Your task to perform on an android device: turn off translation in the chrome app Image 0: 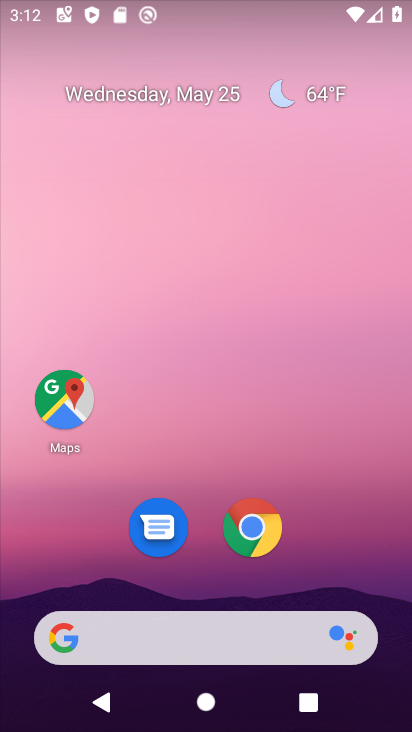
Step 0: click (259, 523)
Your task to perform on an android device: turn off translation in the chrome app Image 1: 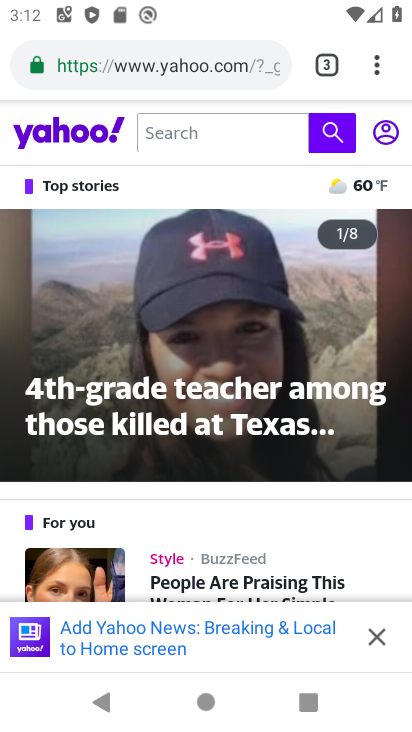
Step 1: drag from (374, 51) to (168, 569)
Your task to perform on an android device: turn off translation in the chrome app Image 2: 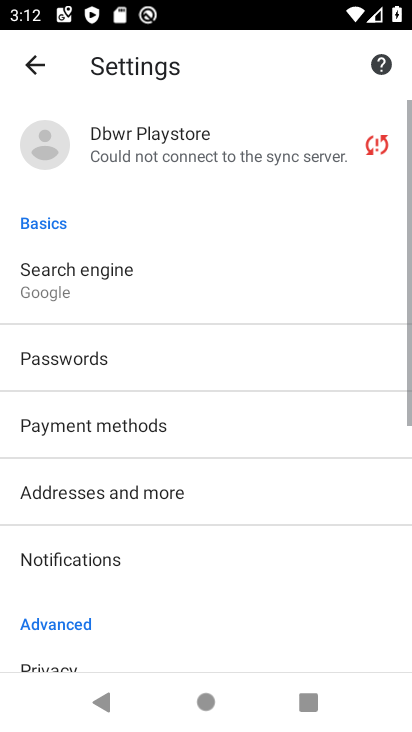
Step 2: drag from (154, 604) to (249, 155)
Your task to perform on an android device: turn off translation in the chrome app Image 3: 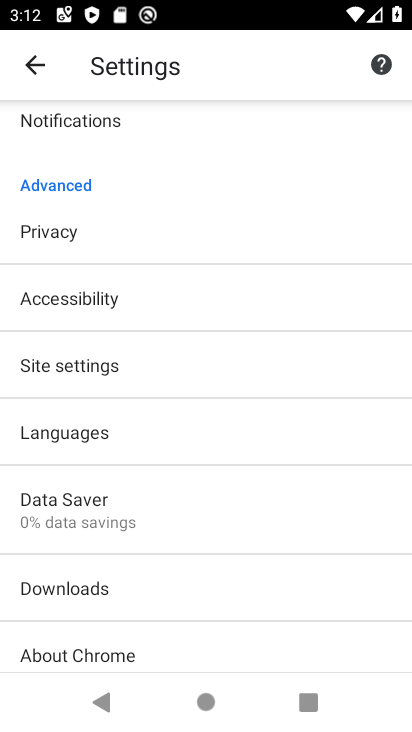
Step 3: click (76, 429)
Your task to perform on an android device: turn off translation in the chrome app Image 4: 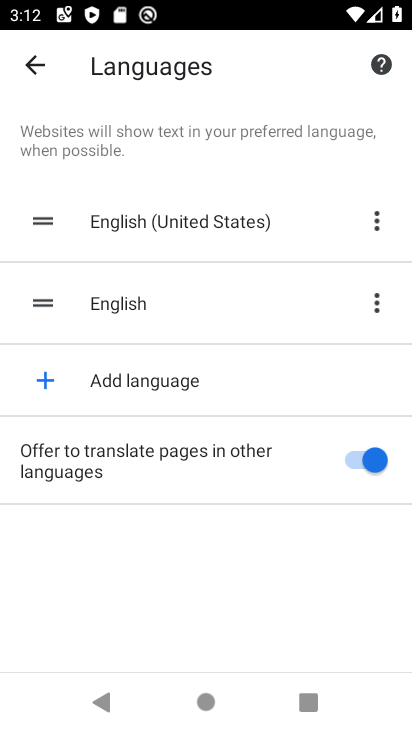
Step 4: click (371, 458)
Your task to perform on an android device: turn off translation in the chrome app Image 5: 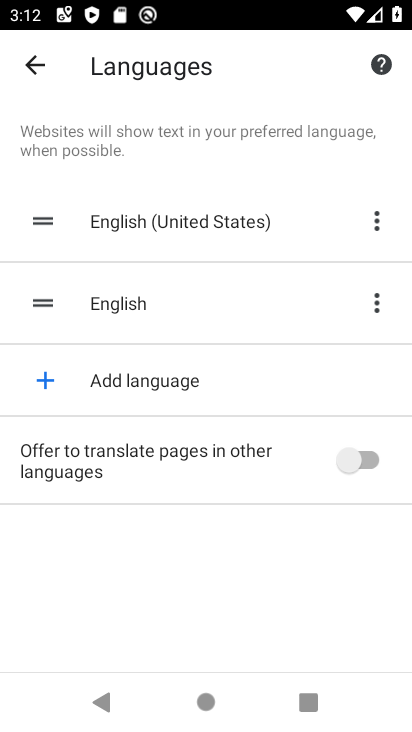
Step 5: task complete